Your task to perform on an android device: turn on wifi Image 0: 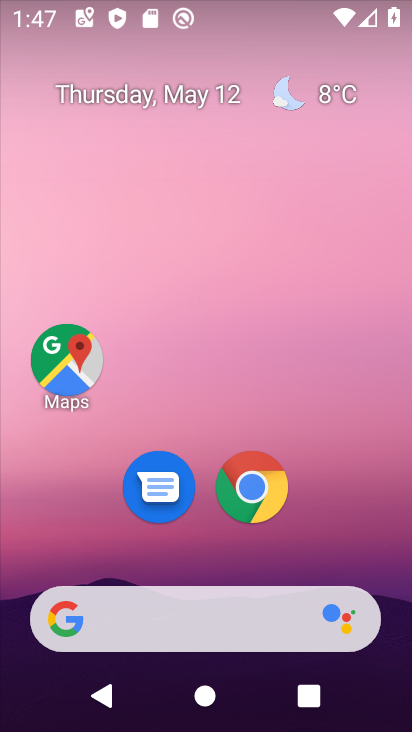
Step 0: drag from (320, 535) to (246, 65)
Your task to perform on an android device: turn on wifi Image 1: 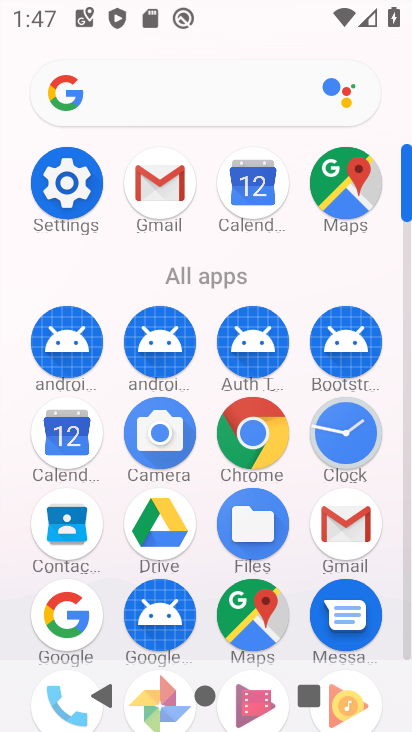
Step 1: click (52, 185)
Your task to perform on an android device: turn on wifi Image 2: 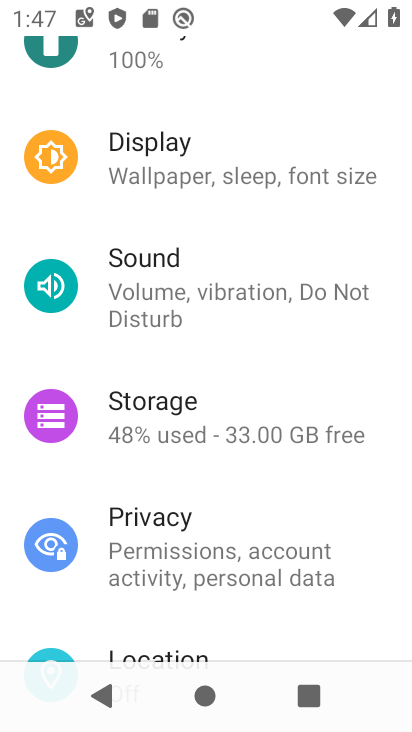
Step 2: drag from (179, 177) to (196, 605)
Your task to perform on an android device: turn on wifi Image 3: 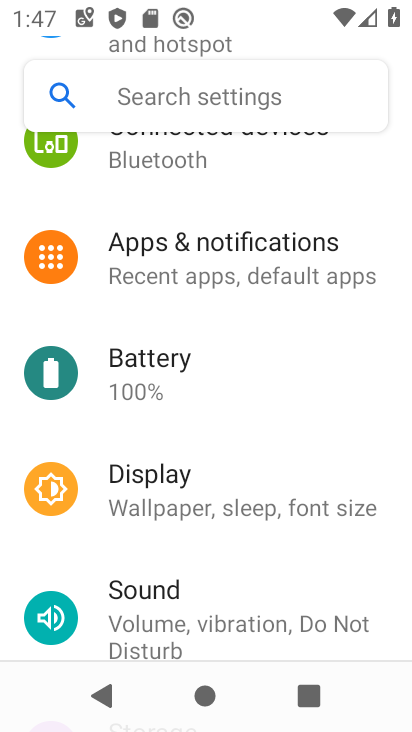
Step 3: drag from (185, 295) to (247, 612)
Your task to perform on an android device: turn on wifi Image 4: 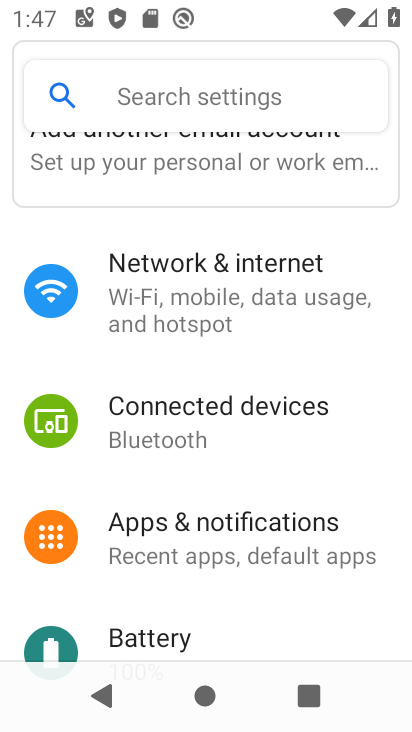
Step 4: click (223, 273)
Your task to perform on an android device: turn on wifi Image 5: 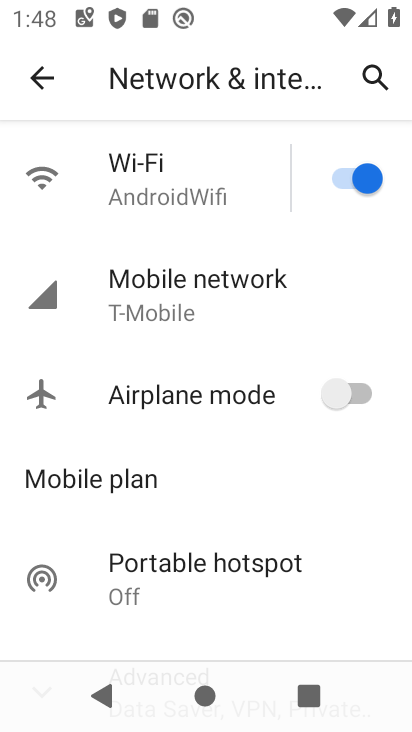
Step 5: task complete